Your task to perform on an android device: What's on my calendar today? Image 0: 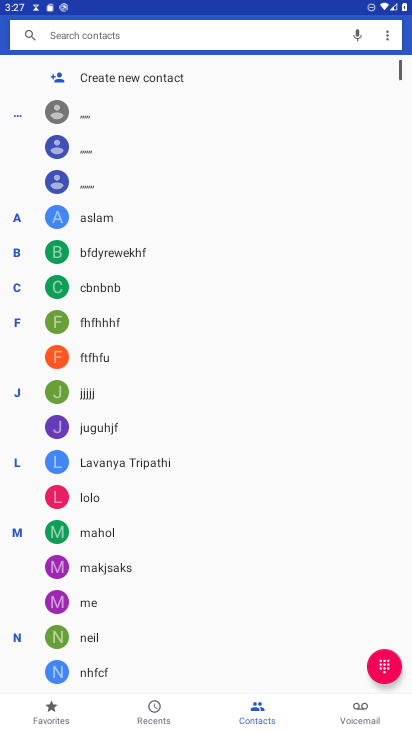
Step 0: press home button
Your task to perform on an android device: What's on my calendar today? Image 1: 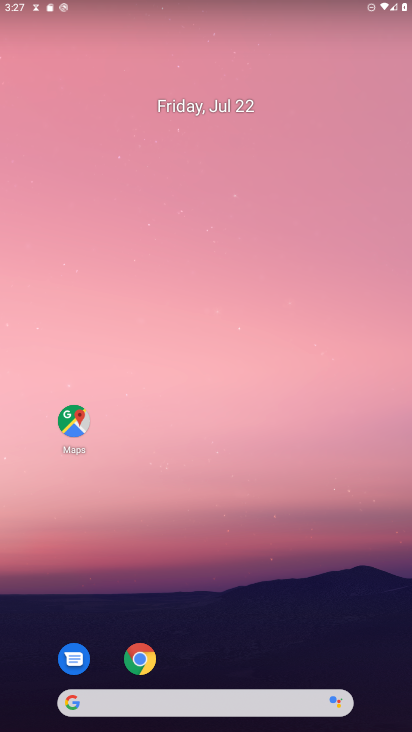
Step 1: drag from (219, 670) to (182, 96)
Your task to perform on an android device: What's on my calendar today? Image 2: 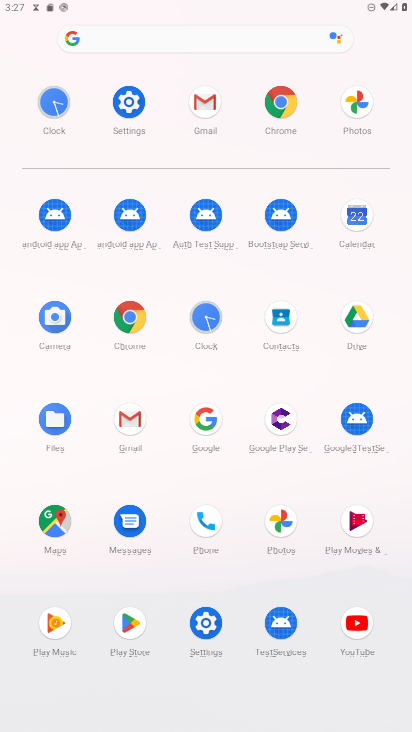
Step 2: click (362, 220)
Your task to perform on an android device: What's on my calendar today? Image 3: 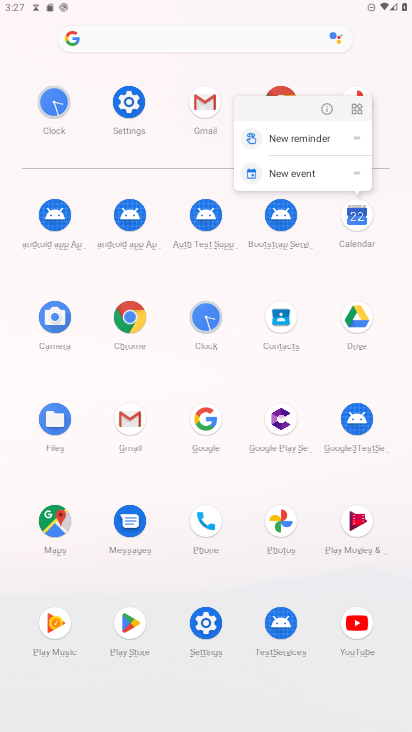
Step 3: click (349, 215)
Your task to perform on an android device: What's on my calendar today? Image 4: 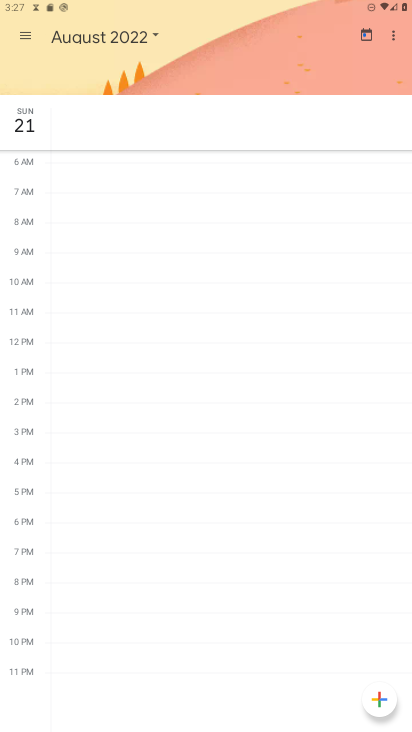
Step 4: click (77, 27)
Your task to perform on an android device: What's on my calendar today? Image 5: 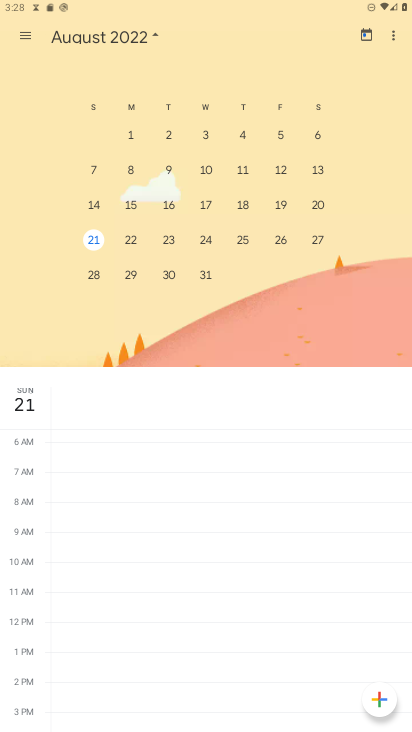
Step 5: click (96, 238)
Your task to perform on an android device: What's on my calendar today? Image 6: 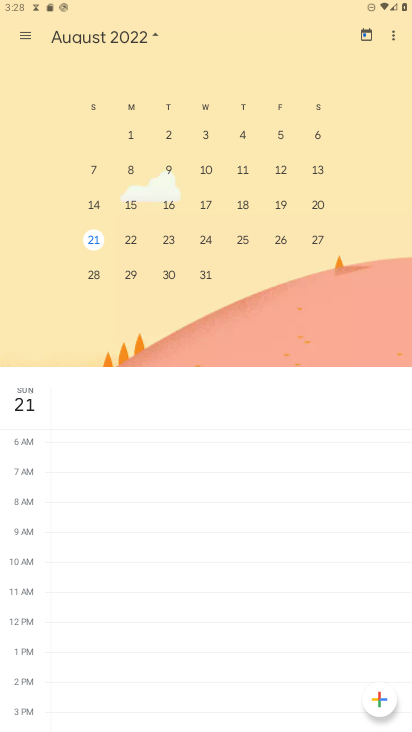
Step 6: task complete